Your task to perform on an android device: move an email to a new category in the gmail app Image 0: 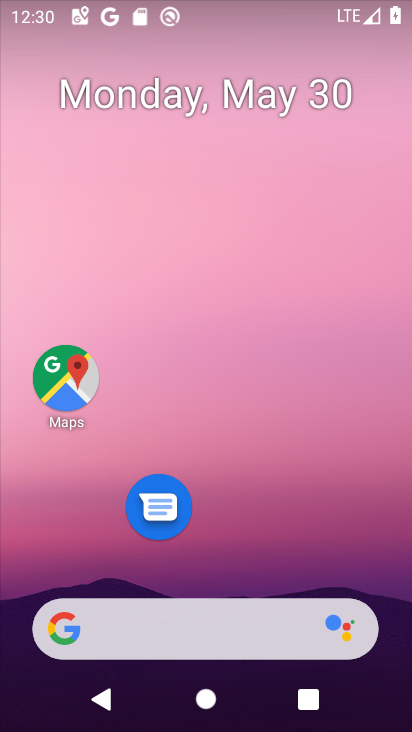
Step 0: drag from (285, 519) to (261, 81)
Your task to perform on an android device: move an email to a new category in the gmail app Image 1: 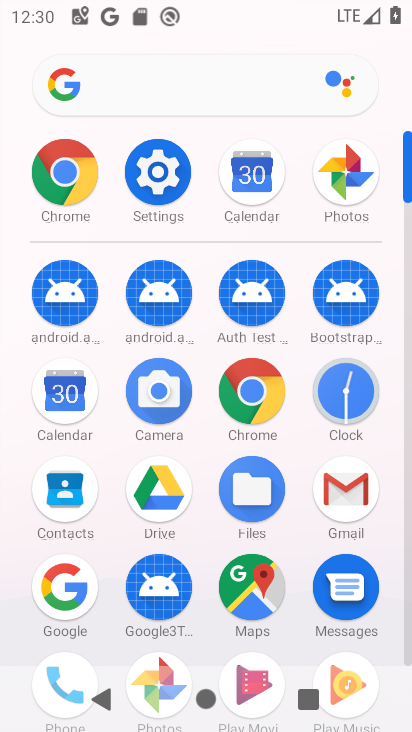
Step 1: drag from (207, 262) to (205, 61)
Your task to perform on an android device: move an email to a new category in the gmail app Image 2: 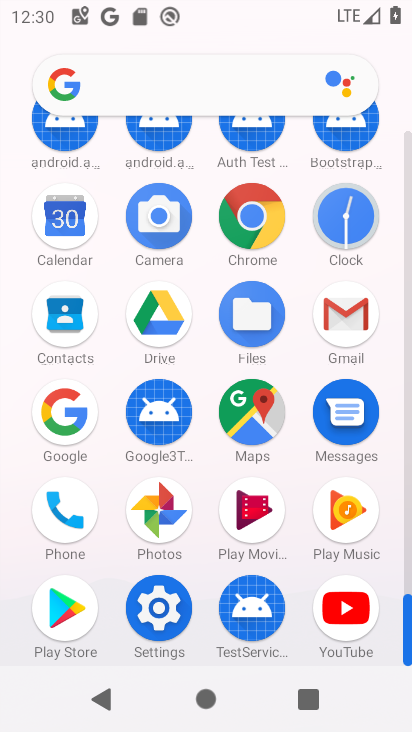
Step 2: click (344, 314)
Your task to perform on an android device: move an email to a new category in the gmail app Image 3: 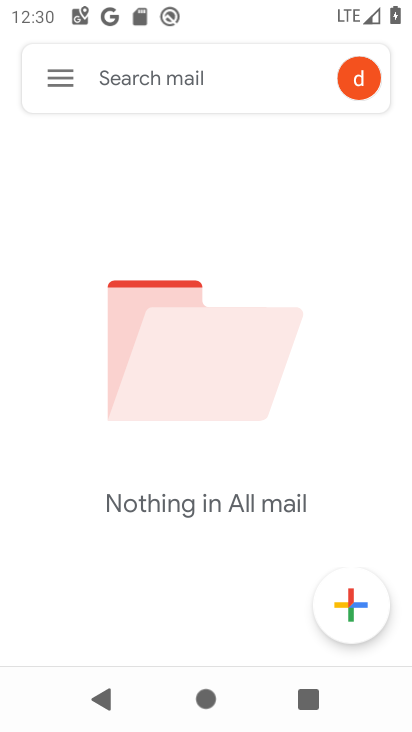
Step 3: click (53, 85)
Your task to perform on an android device: move an email to a new category in the gmail app Image 4: 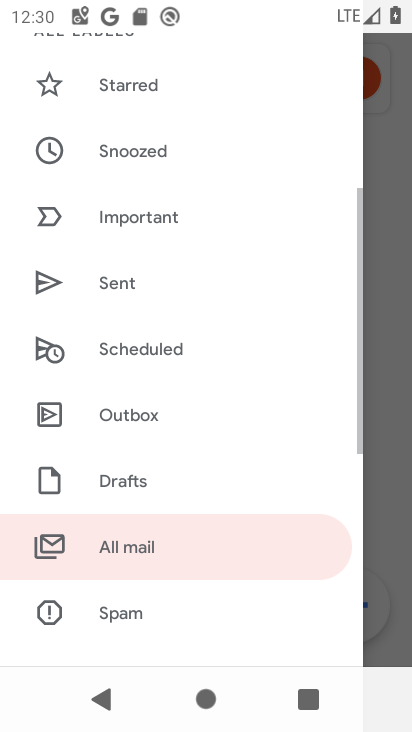
Step 4: drag from (211, 113) to (228, 402)
Your task to perform on an android device: move an email to a new category in the gmail app Image 5: 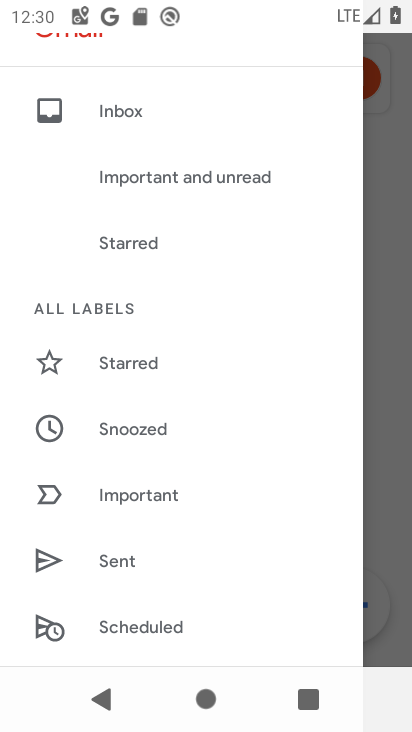
Step 5: click (113, 106)
Your task to perform on an android device: move an email to a new category in the gmail app Image 6: 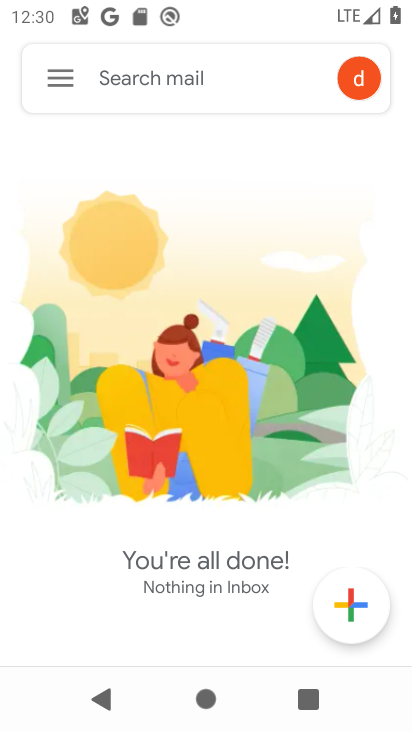
Step 6: task complete